Your task to perform on an android device: turn off improve location accuracy Image 0: 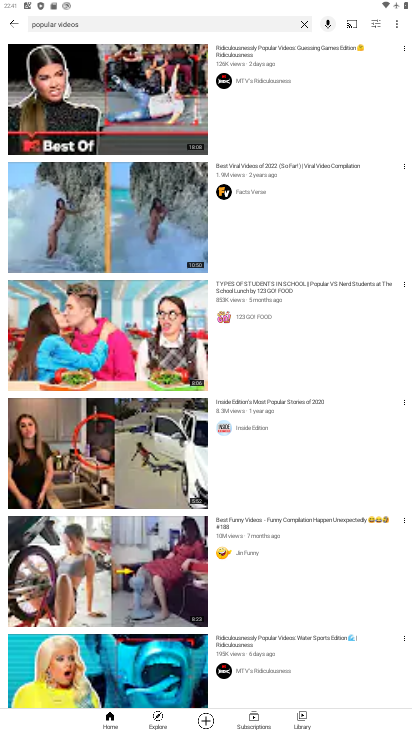
Step 0: press home button
Your task to perform on an android device: turn off improve location accuracy Image 1: 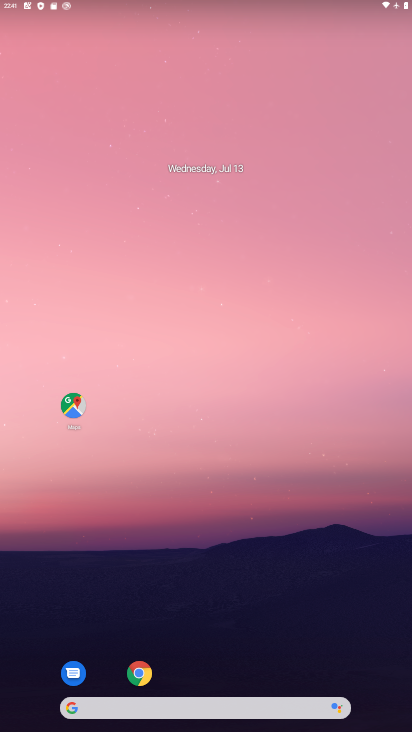
Step 1: drag from (232, 640) to (216, 233)
Your task to perform on an android device: turn off improve location accuracy Image 2: 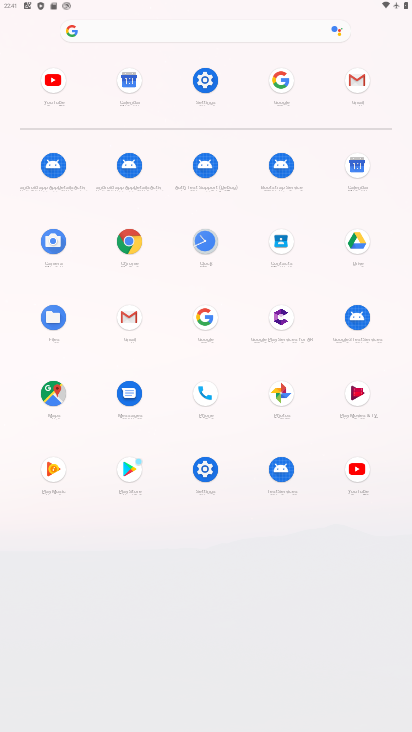
Step 2: click (207, 86)
Your task to perform on an android device: turn off improve location accuracy Image 3: 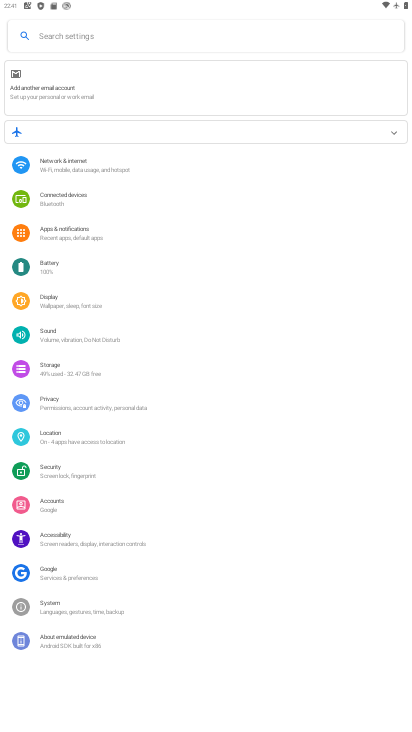
Step 3: click (98, 432)
Your task to perform on an android device: turn off improve location accuracy Image 4: 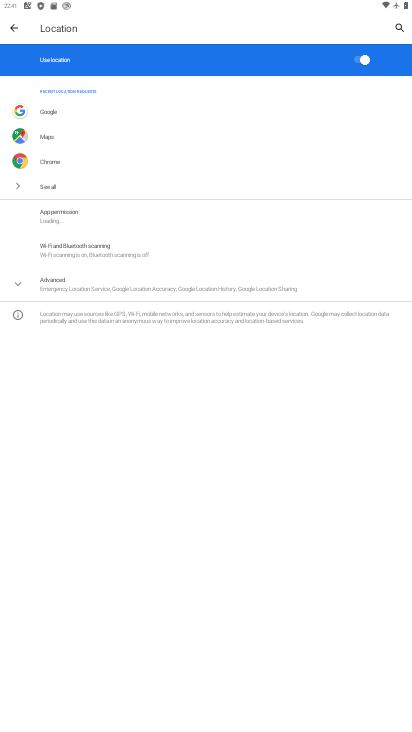
Step 4: click (356, 54)
Your task to perform on an android device: turn off improve location accuracy Image 5: 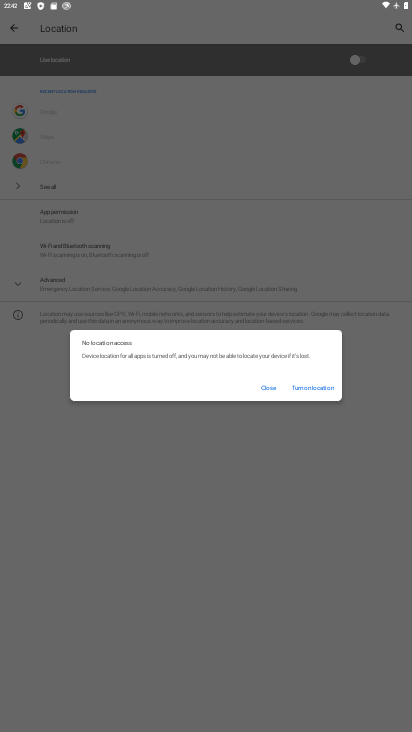
Step 5: click (269, 391)
Your task to perform on an android device: turn off improve location accuracy Image 6: 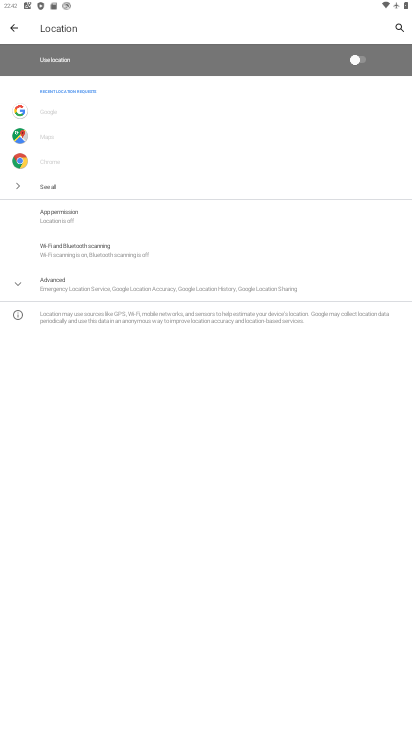
Step 6: click (134, 281)
Your task to perform on an android device: turn off improve location accuracy Image 7: 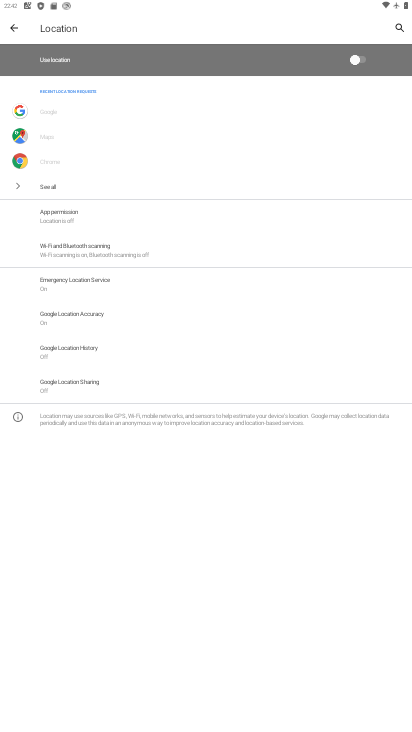
Step 7: click (126, 326)
Your task to perform on an android device: turn off improve location accuracy Image 8: 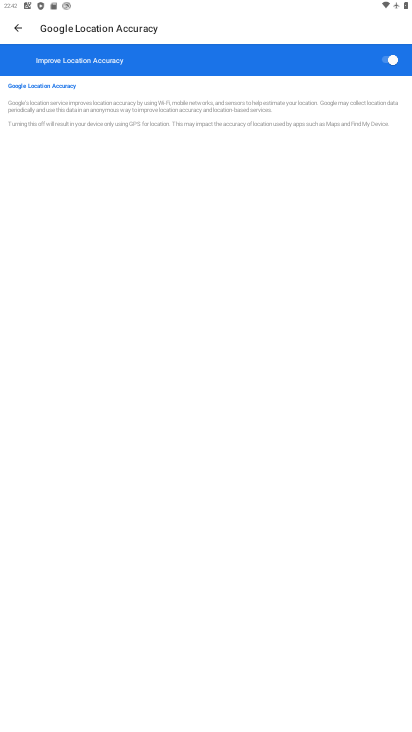
Step 8: click (382, 63)
Your task to perform on an android device: turn off improve location accuracy Image 9: 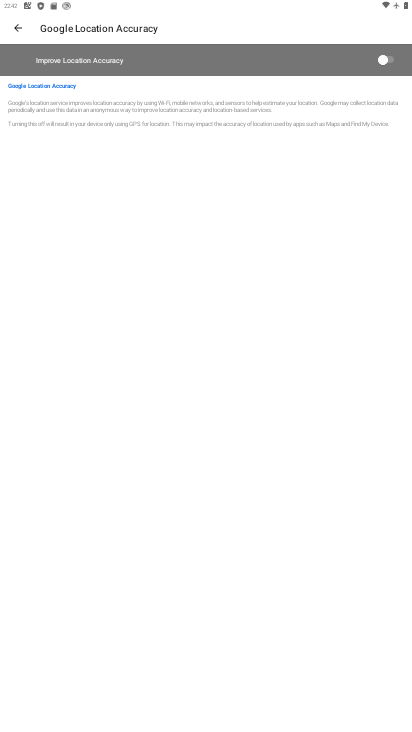
Step 9: task complete